Your task to perform on an android device: change the clock display to analog Image 0: 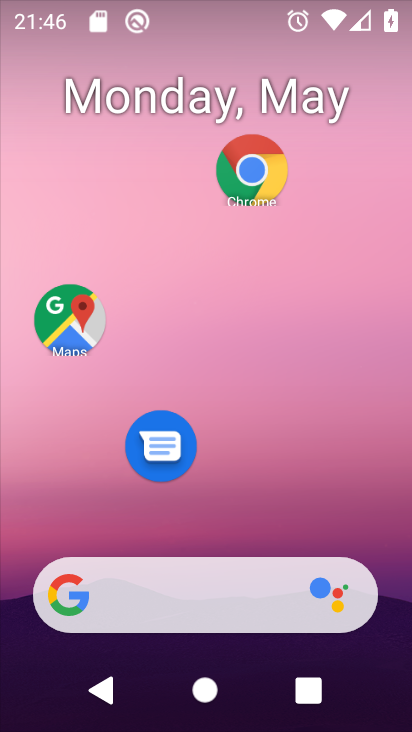
Step 0: press home button
Your task to perform on an android device: change the clock display to analog Image 1: 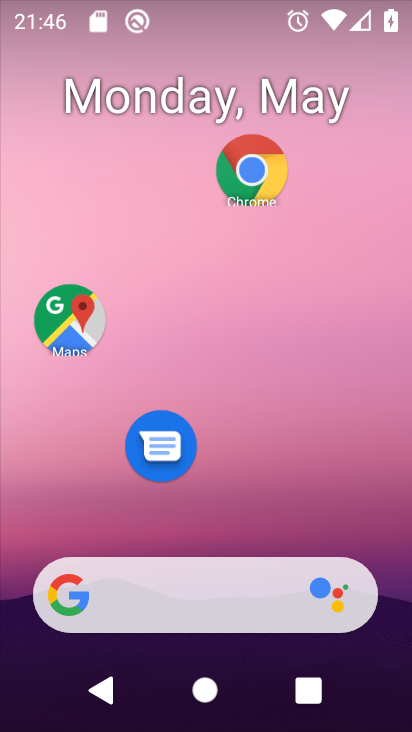
Step 1: drag from (223, 530) to (214, 80)
Your task to perform on an android device: change the clock display to analog Image 2: 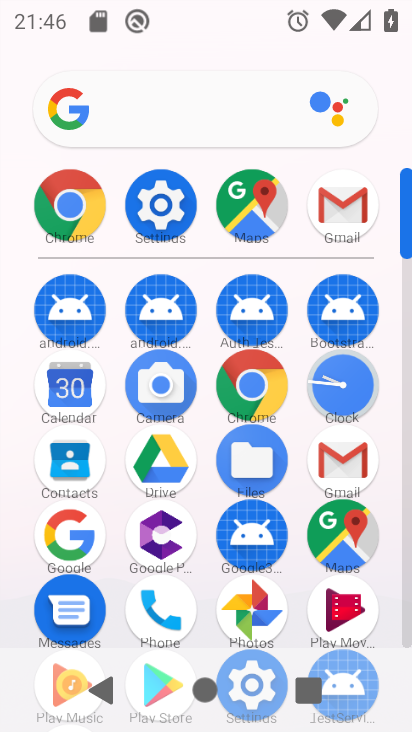
Step 2: drag from (205, 585) to (235, 113)
Your task to perform on an android device: change the clock display to analog Image 3: 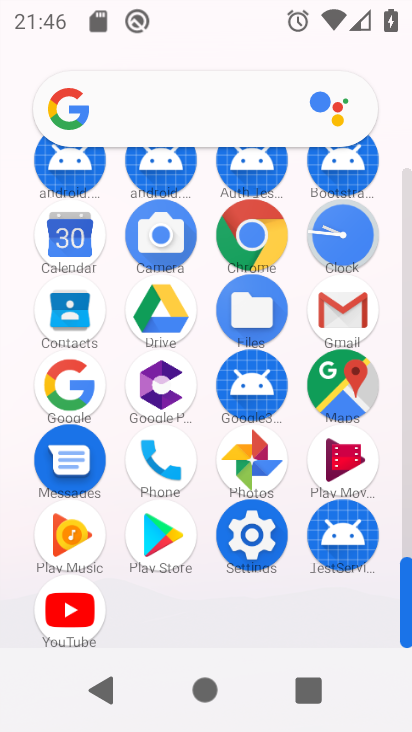
Step 3: click (340, 233)
Your task to perform on an android device: change the clock display to analog Image 4: 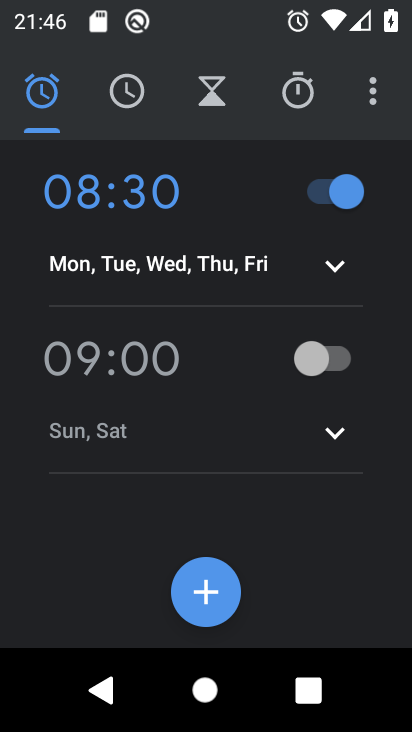
Step 4: click (366, 94)
Your task to perform on an android device: change the clock display to analog Image 5: 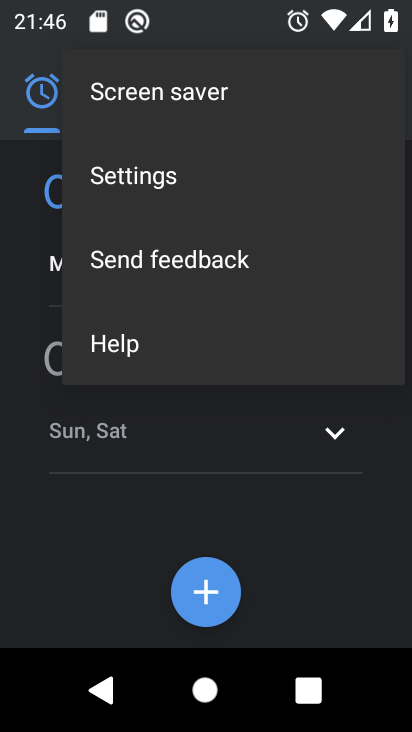
Step 5: click (196, 174)
Your task to perform on an android device: change the clock display to analog Image 6: 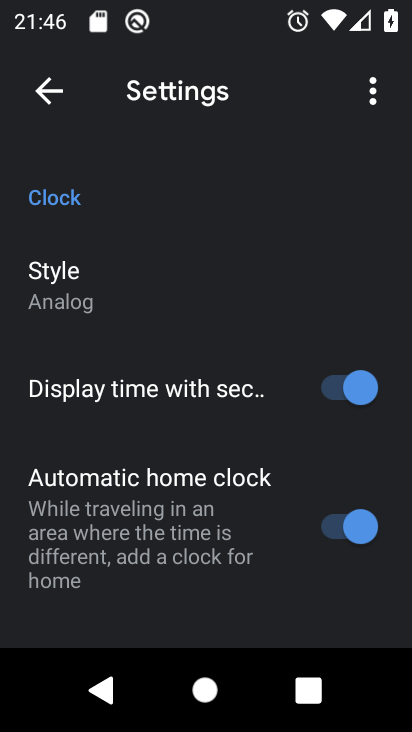
Step 6: click (118, 281)
Your task to perform on an android device: change the clock display to analog Image 7: 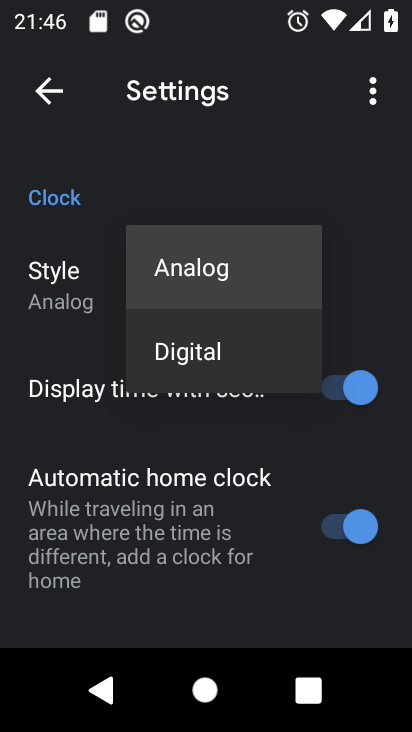
Step 7: click (152, 259)
Your task to perform on an android device: change the clock display to analog Image 8: 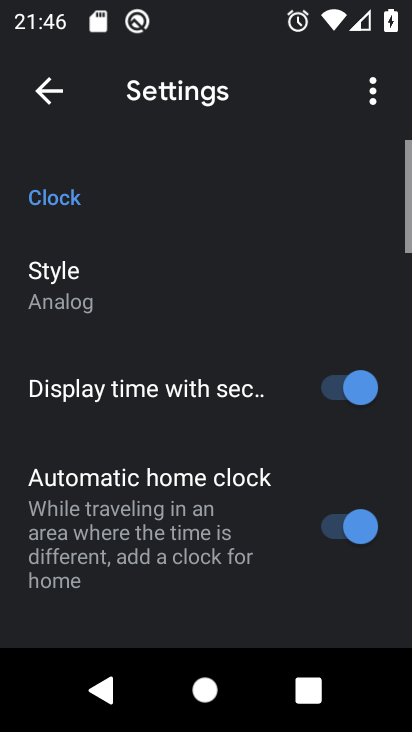
Step 8: task complete